Your task to perform on an android device: turn off notifications settings in the gmail app Image 0: 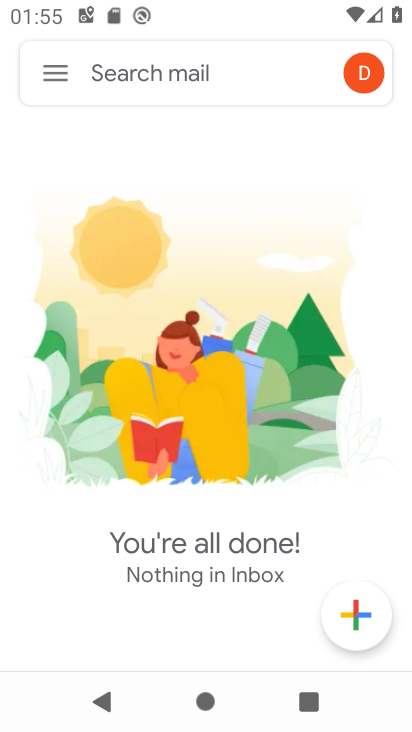
Step 0: press home button
Your task to perform on an android device: turn off notifications settings in the gmail app Image 1: 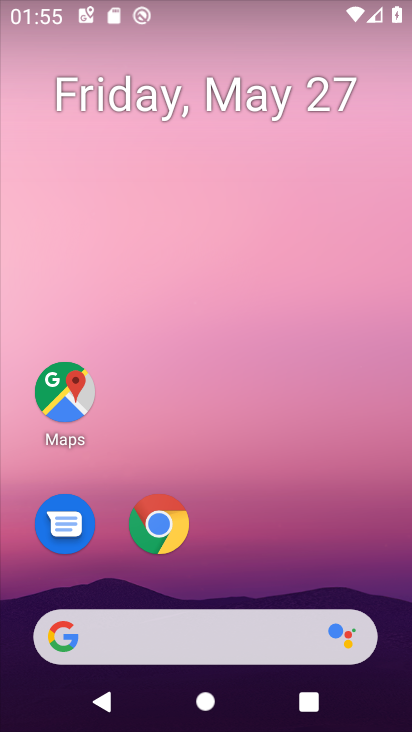
Step 1: drag from (267, 495) to (260, 57)
Your task to perform on an android device: turn off notifications settings in the gmail app Image 2: 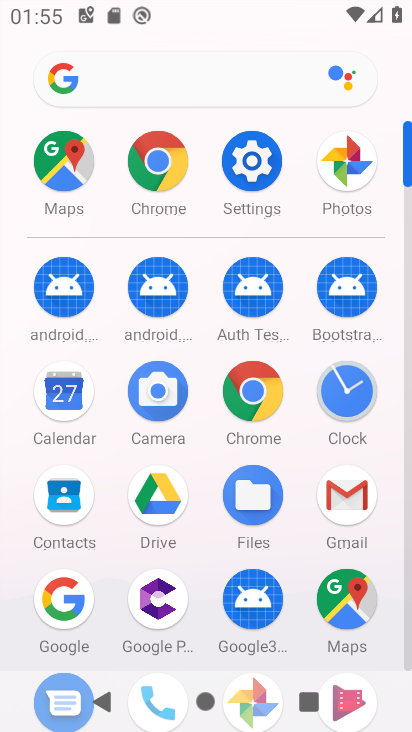
Step 2: click (354, 499)
Your task to perform on an android device: turn off notifications settings in the gmail app Image 3: 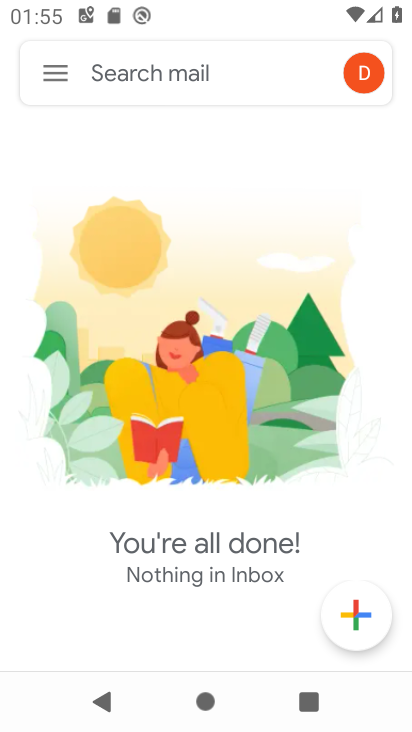
Step 3: click (62, 69)
Your task to perform on an android device: turn off notifications settings in the gmail app Image 4: 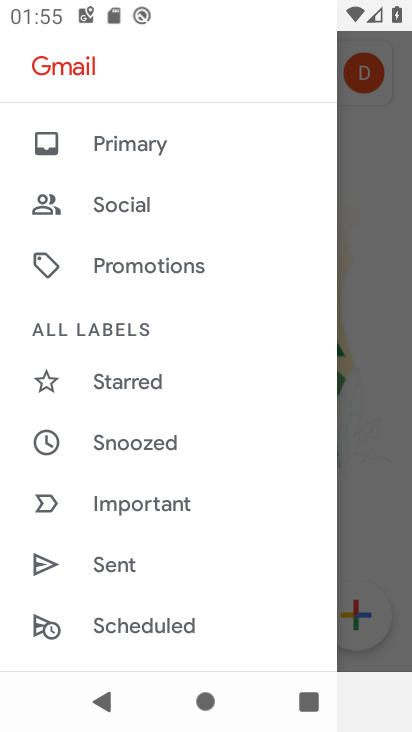
Step 4: drag from (168, 542) to (197, 26)
Your task to perform on an android device: turn off notifications settings in the gmail app Image 5: 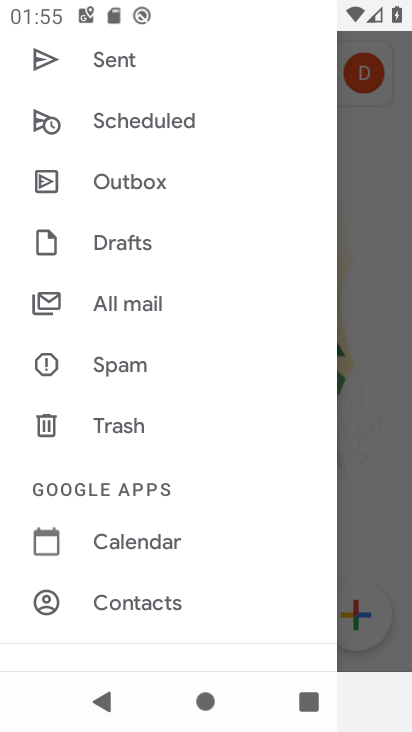
Step 5: drag from (192, 401) to (197, 174)
Your task to perform on an android device: turn off notifications settings in the gmail app Image 6: 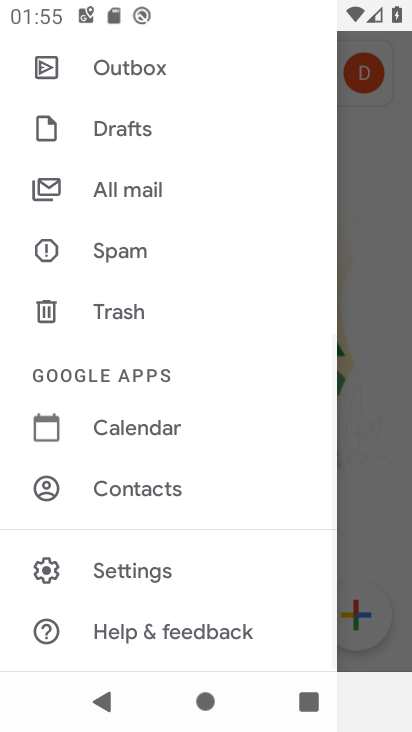
Step 6: click (152, 565)
Your task to perform on an android device: turn off notifications settings in the gmail app Image 7: 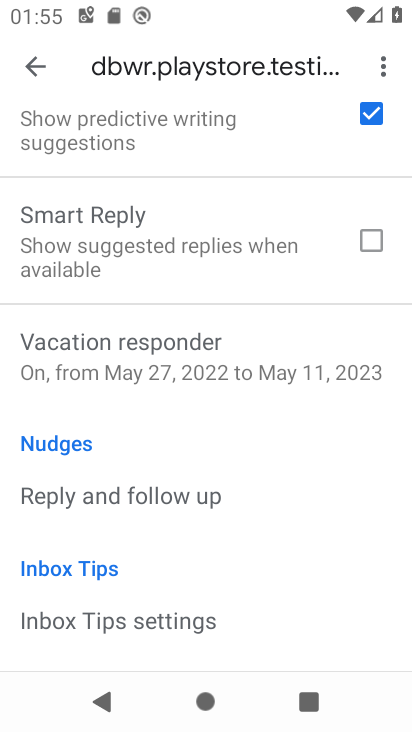
Step 7: drag from (238, 201) to (231, 656)
Your task to perform on an android device: turn off notifications settings in the gmail app Image 8: 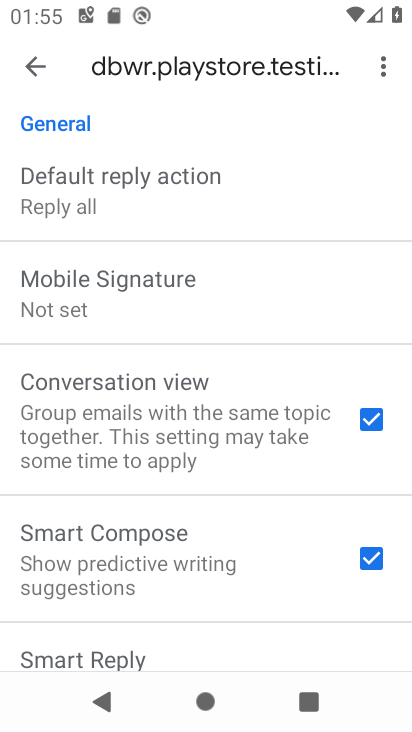
Step 8: drag from (225, 275) to (201, 571)
Your task to perform on an android device: turn off notifications settings in the gmail app Image 9: 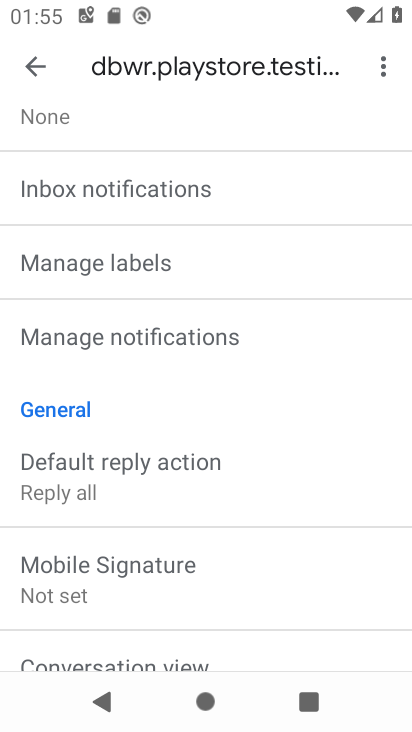
Step 9: click (192, 340)
Your task to perform on an android device: turn off notifications settings in the gmail app Image 10: 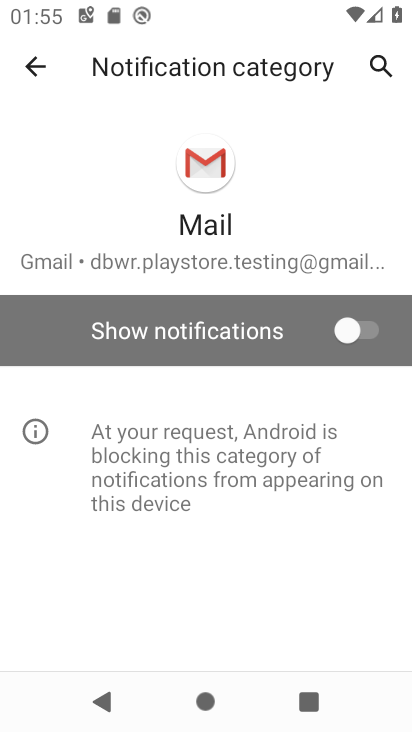
Step 10: click (361, 331)
Your task to perform on an android device: turn off notifications settings in the gmail app Image 11: 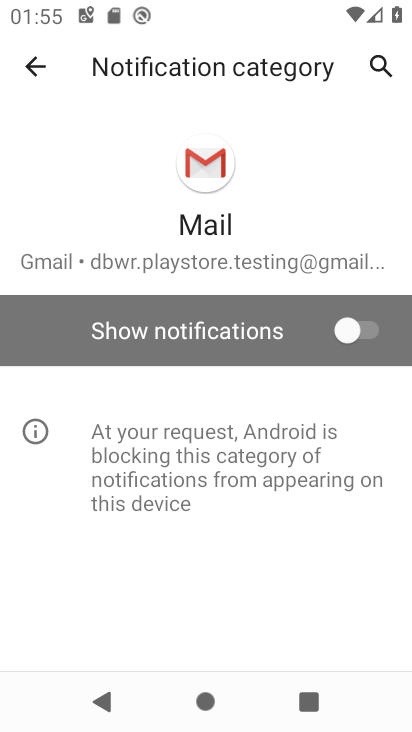
Step 11: task complete